Your task to perform on an android device: Go to Amazon Image 0: 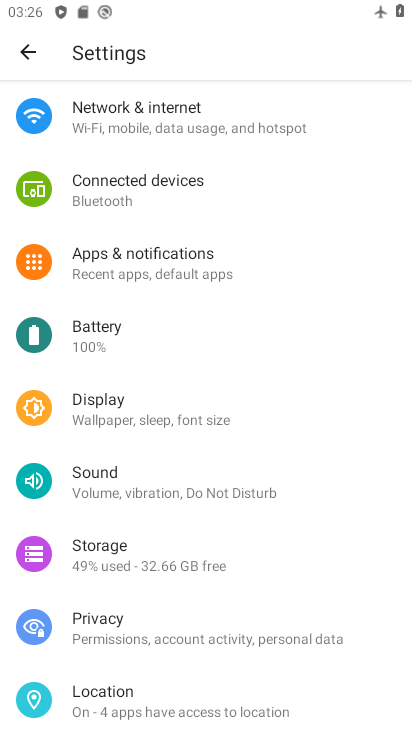
Step 0: press home button
Your task to perform on an android device: Go to Amazon Image 1: 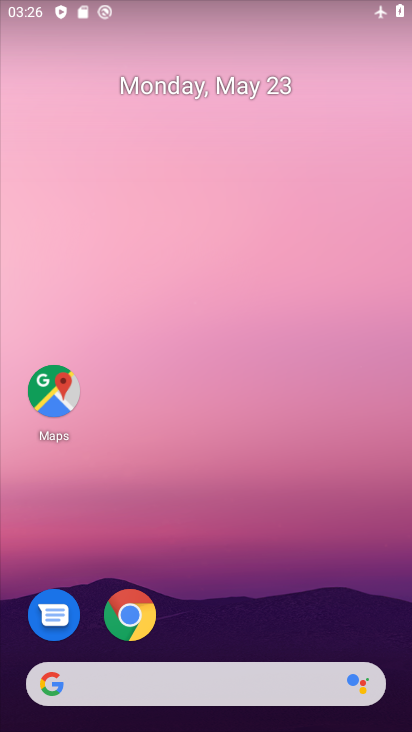
Step 1: click (143, 618)
Your task to perform on an android device: Go to Amazon Image 2: 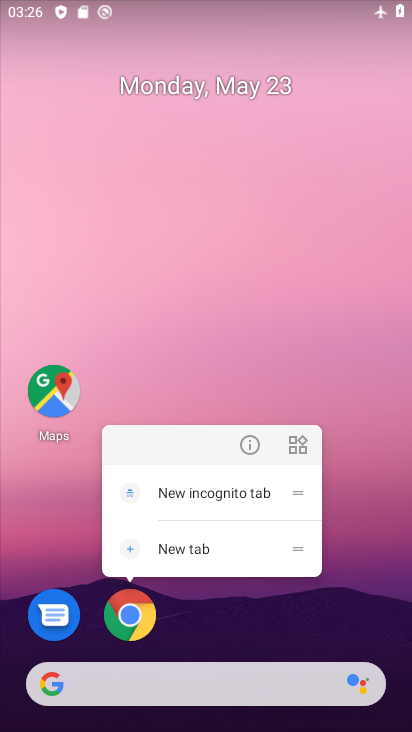
Step 2: click (143, 618)
Your task to perform on an android device: Go to Amazon Image 3: 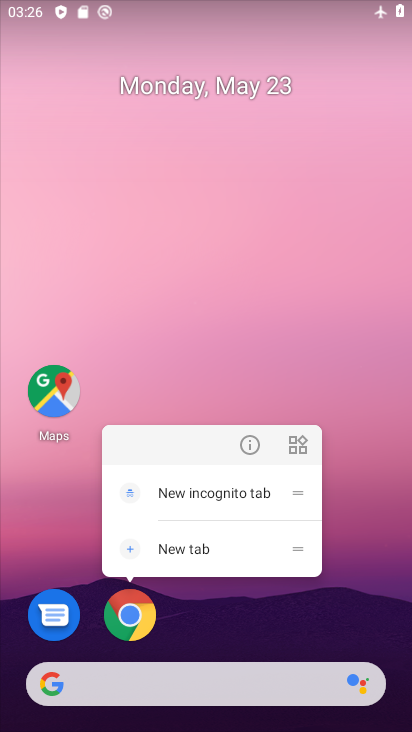
Step 3: click (129, 605)
Your task to perform on an android device: Go to Amazon Image 4: 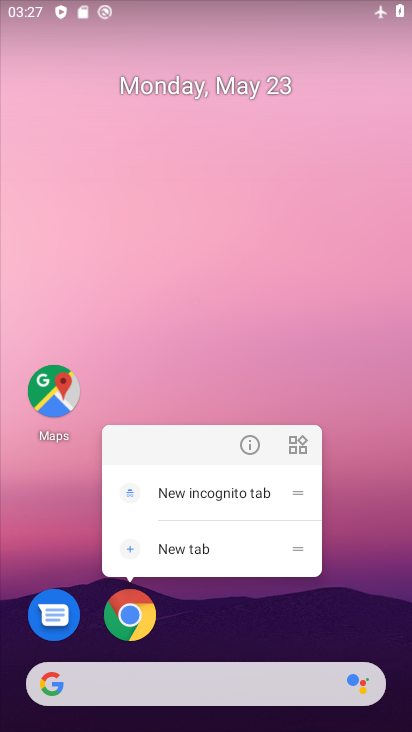
Step 4: click (129, 605)
Your task to perform on an android device: Go to Amazon Image 5: 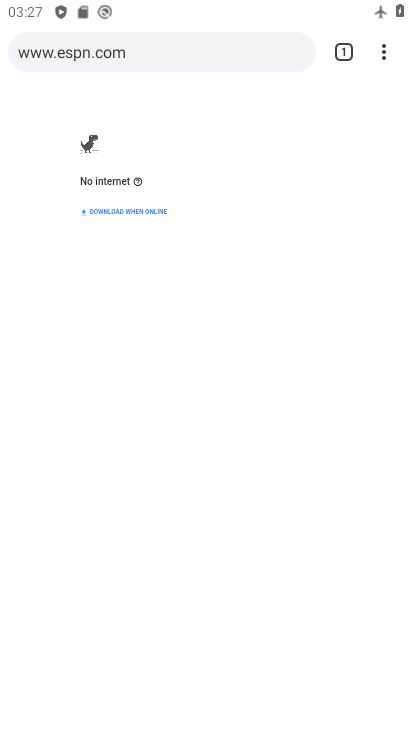
Step 5: click (384, 45)
Your task to perform on an android device: Go to Amazon Image 6: 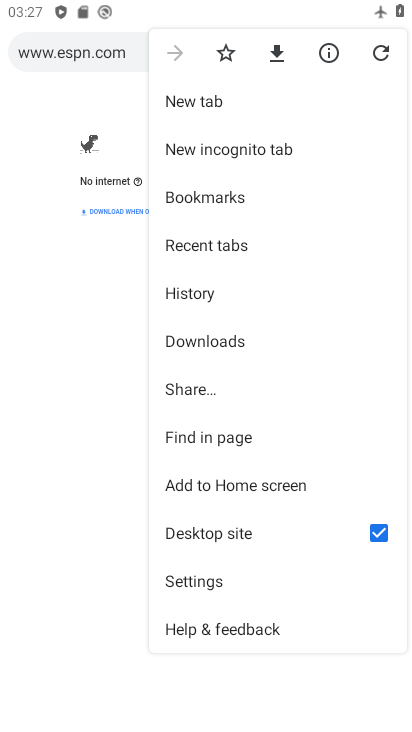
Step 6: click (280, 88)
Your task to perform on an android device: Go to Amazon Image 7: 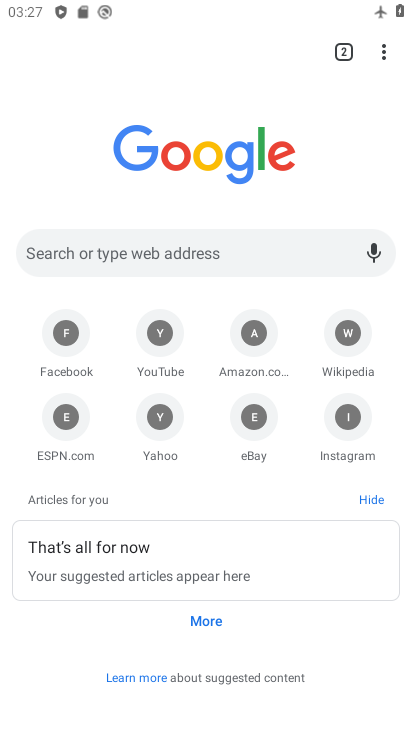
Step 7: click (253, 337)
Your task to perform on an android device: Go to Amazon Image 8: 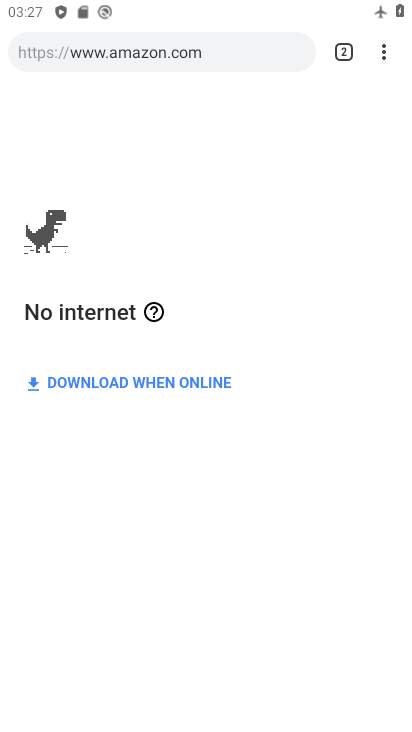
Step 8: task complete